Your task to perform on an android device: Open CNN.com Image 0: 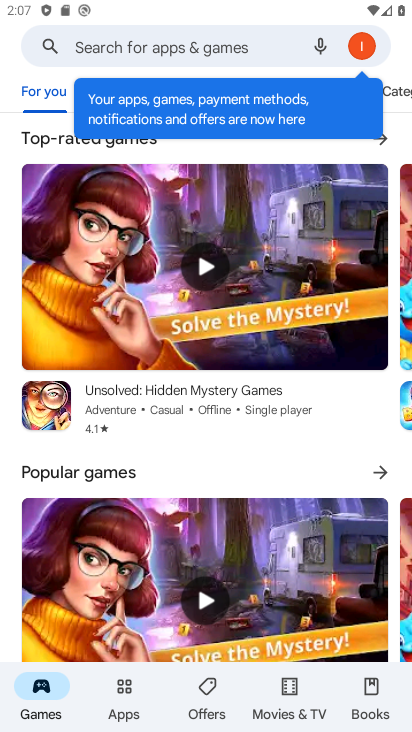
Step 0: press home button
Your task to perform on an android device: Open CNN.com Image 1: 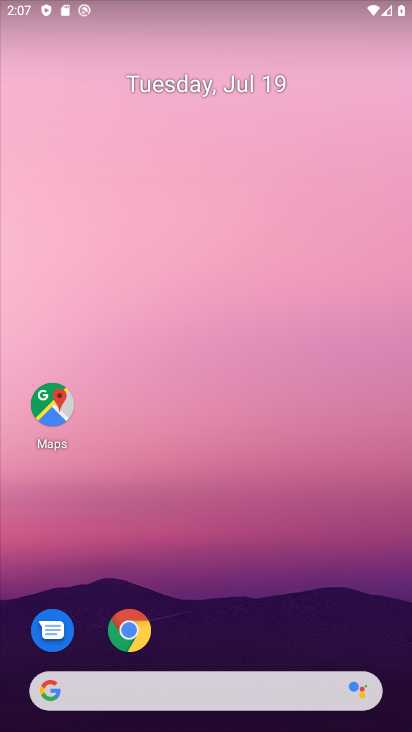
Step 1: click (238, 693)
Your task to perform on an android device: Open CNN.com Image 2: 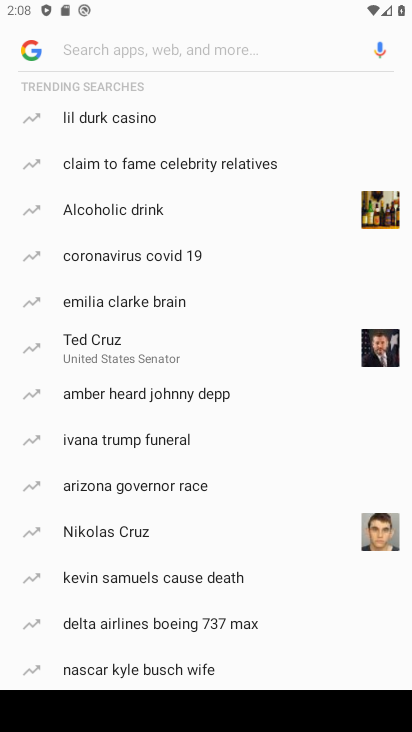
Step 2: type "cnn.com"
Your task to perform on an android device: Open CNN.com Image 3: 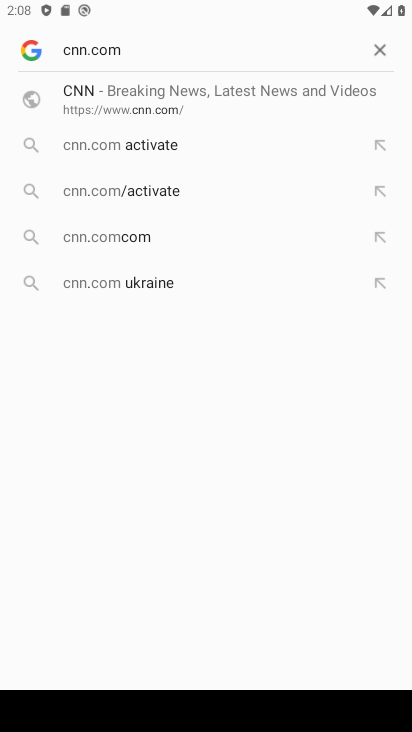
Step 3: click (147, 91)
Your task to perform on an android device: Open CNN.com Image 4: 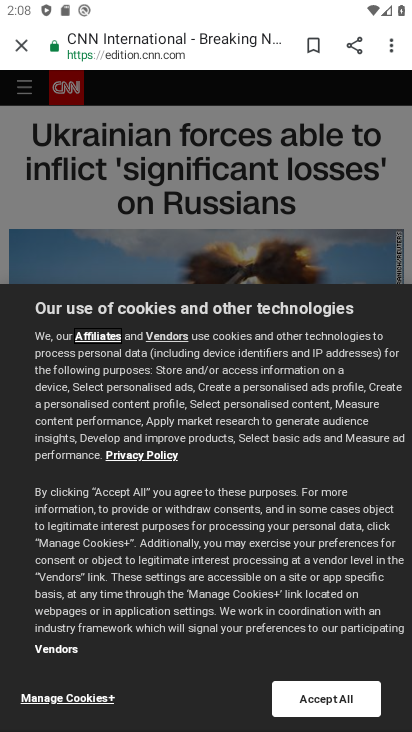
Step 4: click (320, 696)
Your task to perform on an android device: Open CNN.com Image 5: 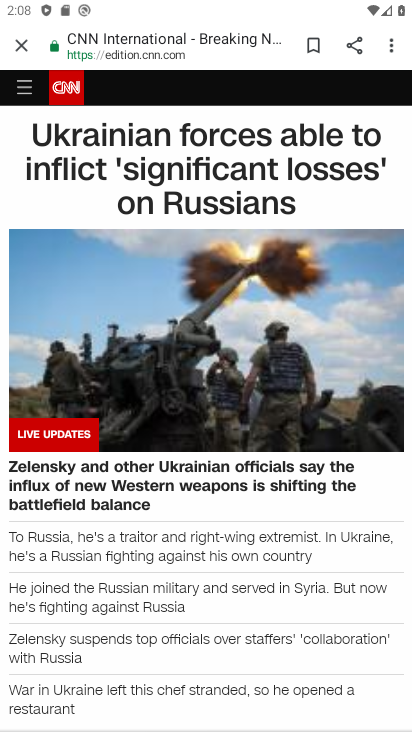
Step 5: task complete